Your task to perform on an android device: stop showing notifications on the lock screen Image 0: 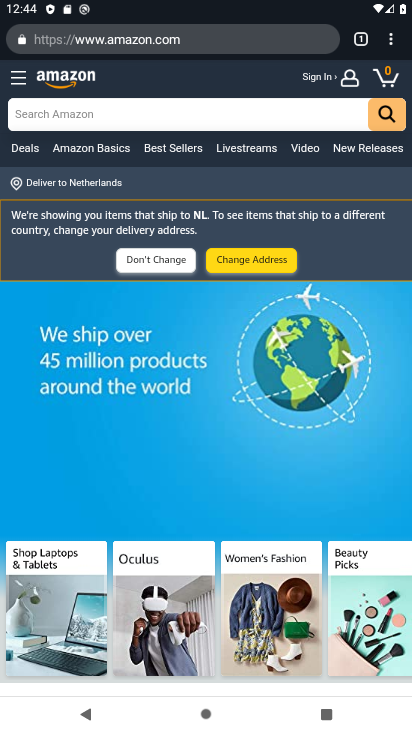
Step 0: press home button
Your task to perform on an android device: stop showing notifications on the lock screen Image 1: 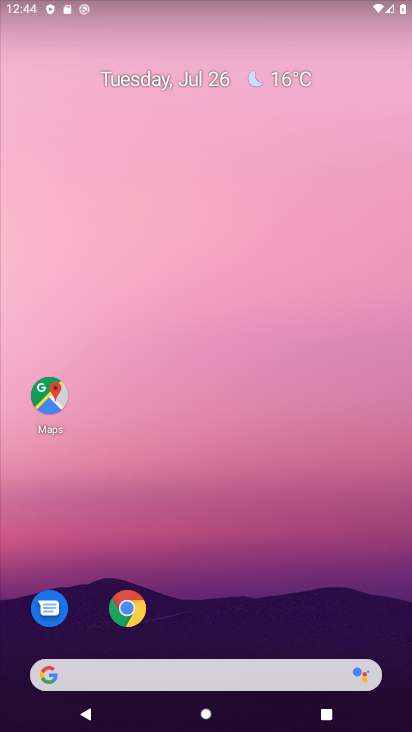
Step 1: task complete